Your task to perform on an android device: remove spam from my inbox in the gmail app Image 0: 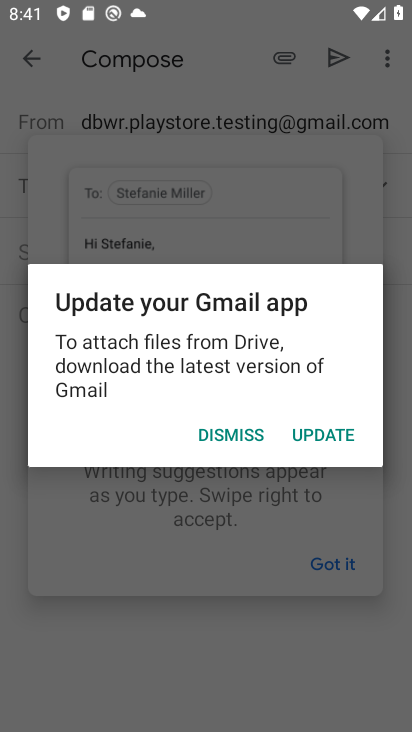
Step 0: press home button
Your task to perform on an android device: remove spam from my inbox in the gmail app Image 1: 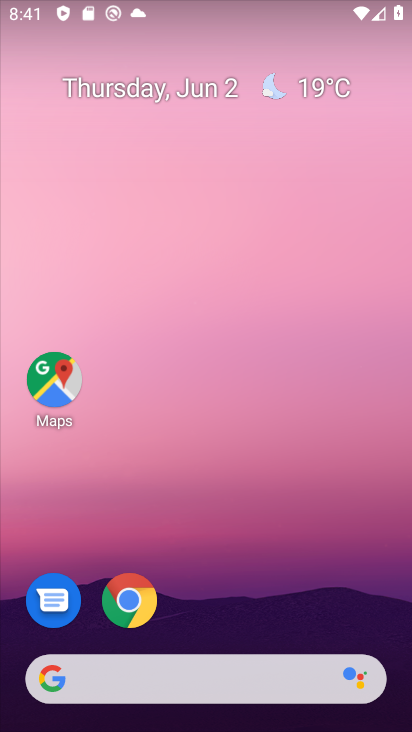
Step 1: drag from (204, 615) to (208, 270)
Your task to perform on an android device: remove spam from my inbox in the gmail app Image 2: 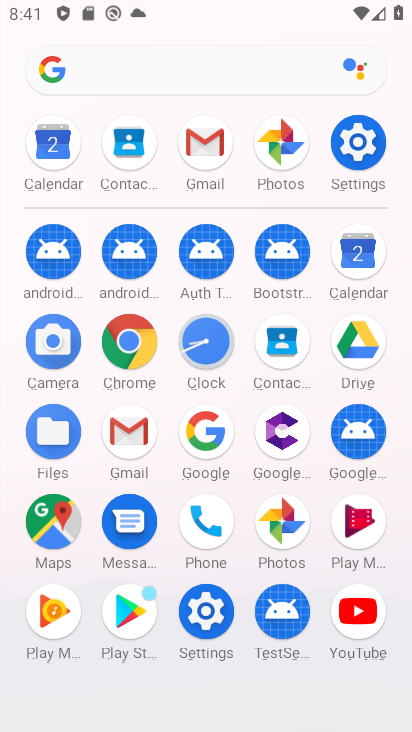
Step 2: click (200, 126)
Your task to perform on an android device: remove spam from my inbox in the gmail app Image 3: 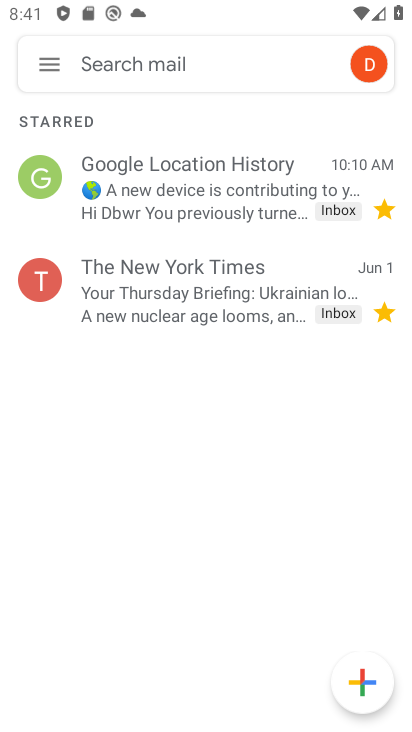
Step 3: click (55, 73)
Your task to perform on an android device: remove spam from my inbox in the gmail app Image 4: 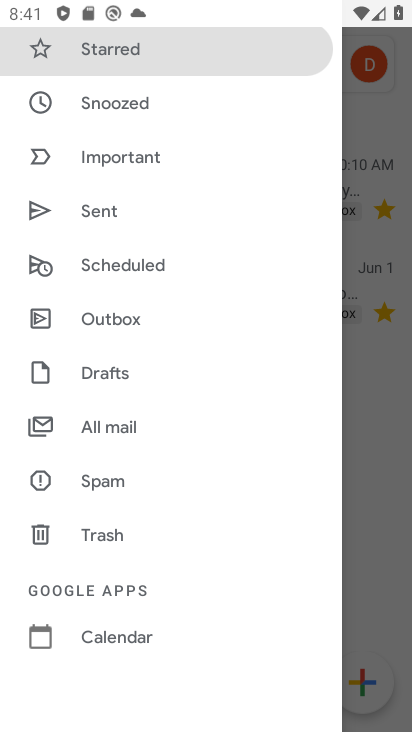
Step 4: click (132, 476)
Your task to perform on an android device: remove spam from my inbox in the gmail app Image 5: 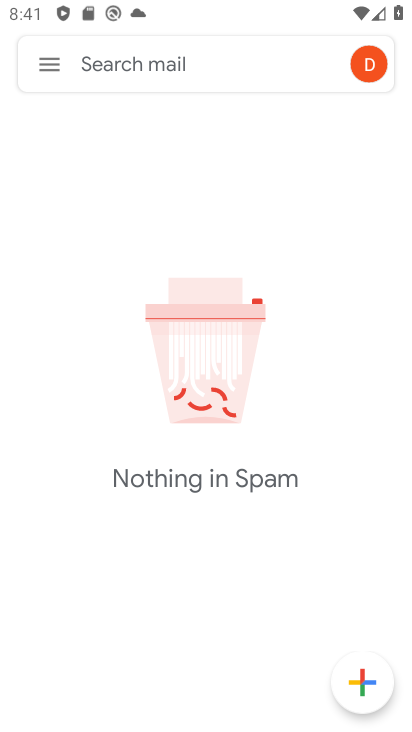
Step 5: task complete